Your task to perform on an android device: turn on priority inbox in the gmail app Image 0: 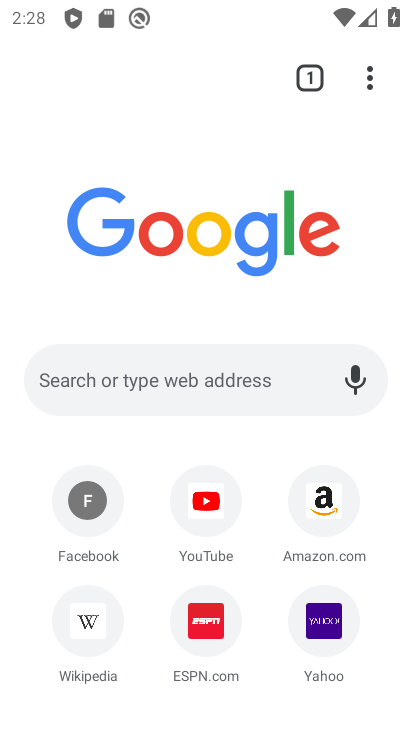
Step 0: press home button
Your task to perform on an android device: turn on priority inbox in the gmail app Image 1: 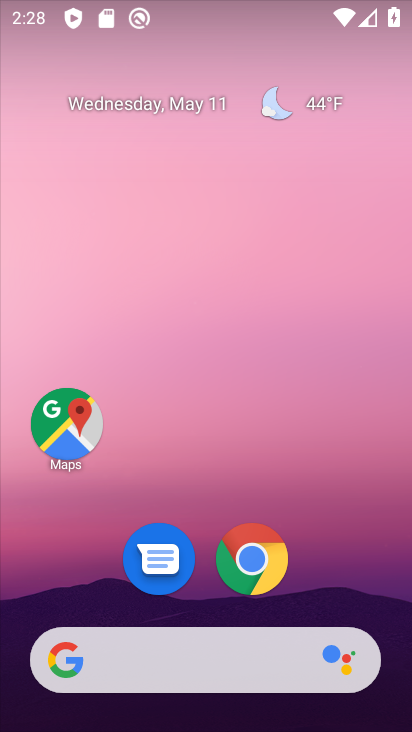
Step 1: drag from (356, 559) to (293, 64)
Your task to perform on an android device: turn on priority inbox in the gmail app Image 2: 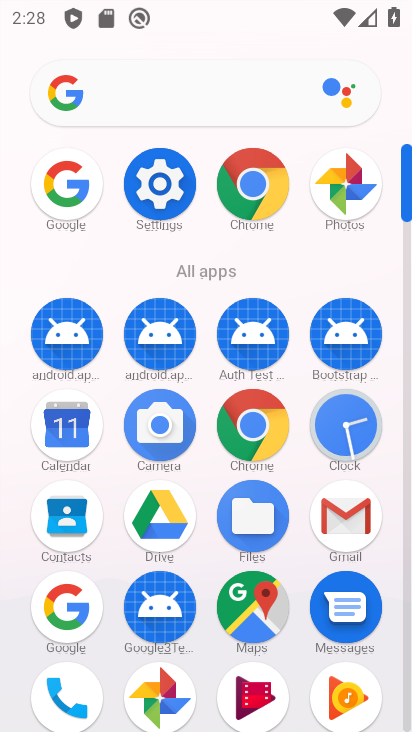
Step 2: click (349, 532)
Your task to perform on an android device: turn on priority inbox in the gmail app Image 3: 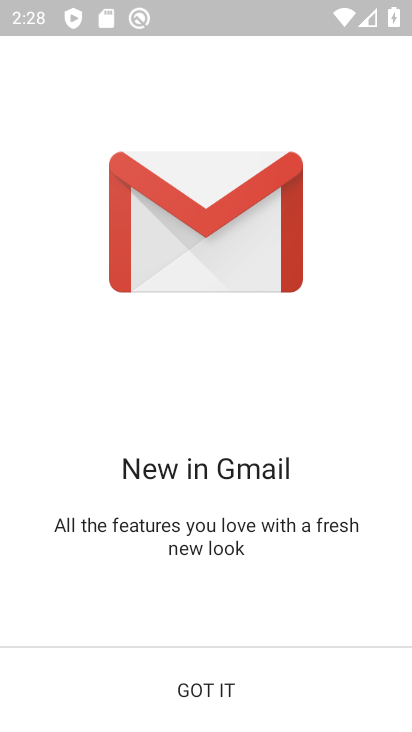
Step 3: click (244, 668)
Your task to perform on an android device: turn on priority inbox in the gmail app Image 4: 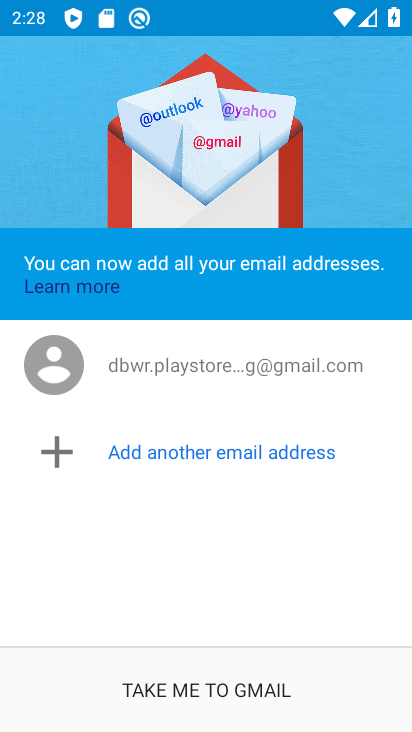
Step 4: click (257, 670)
Your task to perform on an android device: turn on priority inbox in the gmail app Image 5: 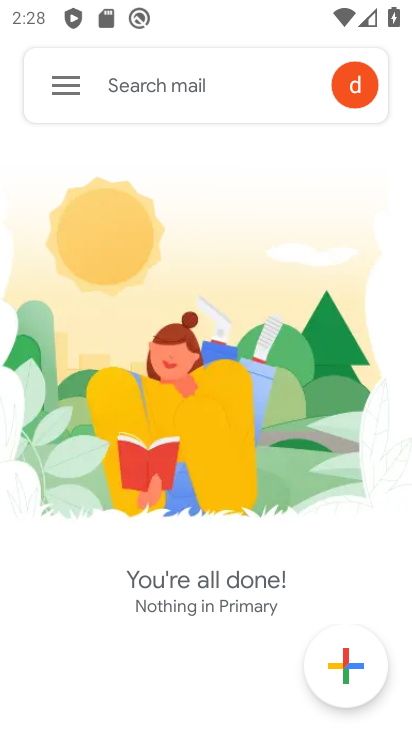
Step 5: click (60, 78)
Your task to perform on an android device: turn on priority inbox in the gmail app Image 6: 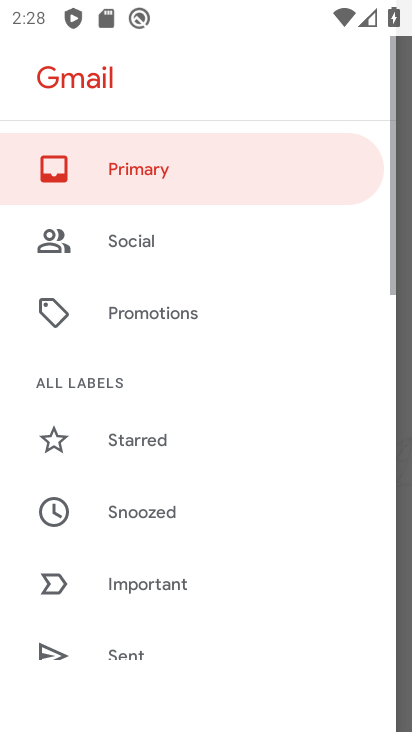
Step 6: drag from (215, 621) to (194, 105)
Your task to perform on an android device: turn on priority inbox in the gmail app Image 7: 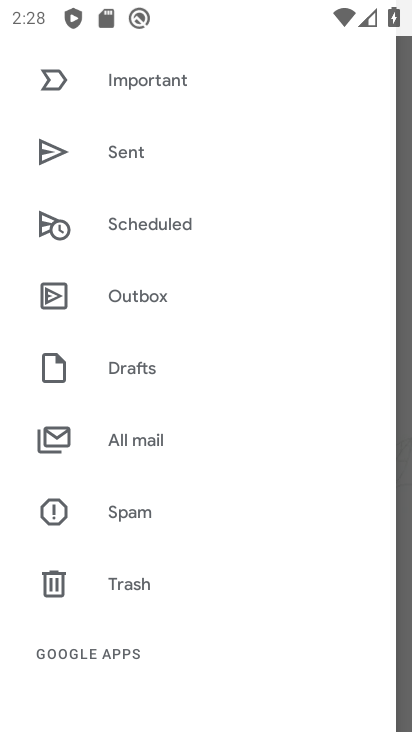
Step 7: drag from (175, 590) to (154, 221)
Your task to perform on an android device: turn on priority inbox in the gmail app Image 8: 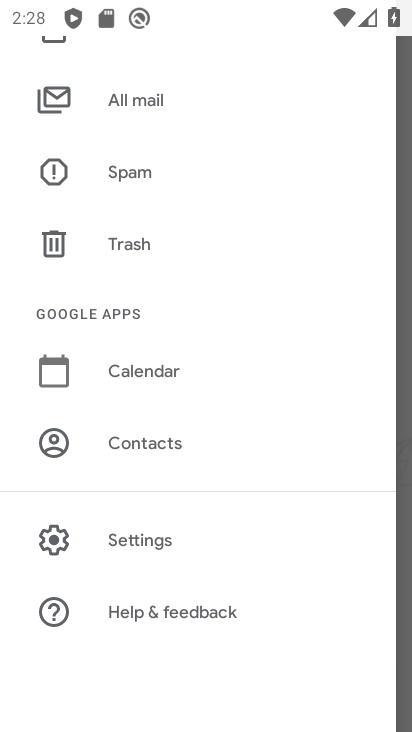
Step 8: click (161, 547)
Your task to perform on an android device: turn on priority inbox in the gmail app Image 9: 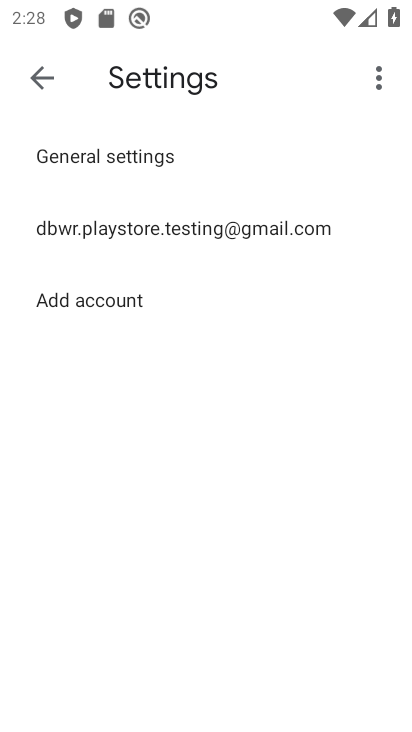
Step 9: click (120, 234)
Your task to perform on an android device: turn on priority inbox in the gmail app Image 10: 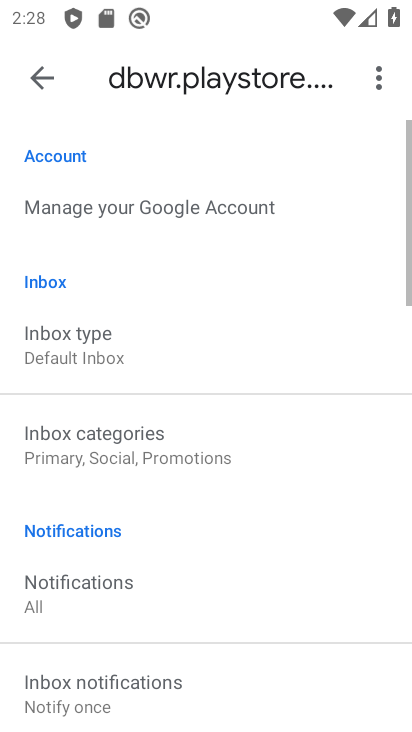
Step 10: click (126, 356)
Your task to perform on an android device: turn on priority inbox in the gmail app Image 11: 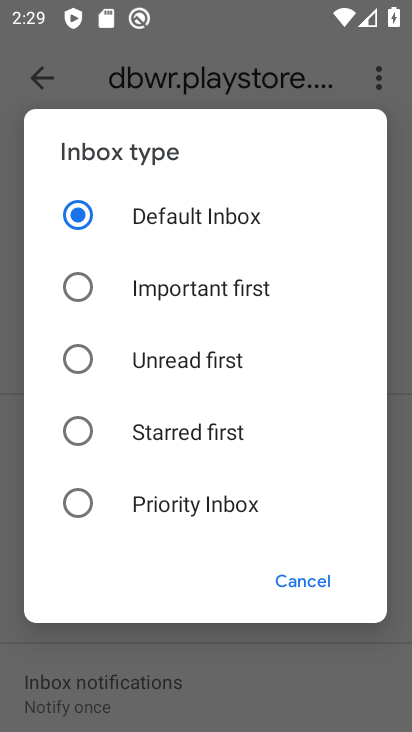
Step 11: click (161, 505)
Your task to perform on an android device: turn on priority inbox in the gmail app Image 12: 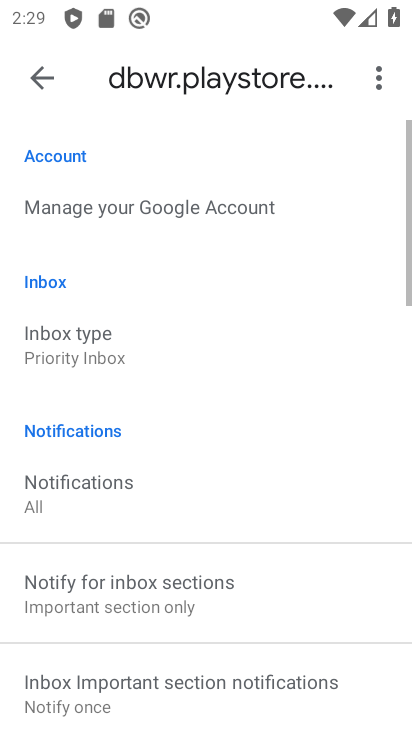
Step 12: task complete